Your task to perform on an android device: toggle location history Image 0: 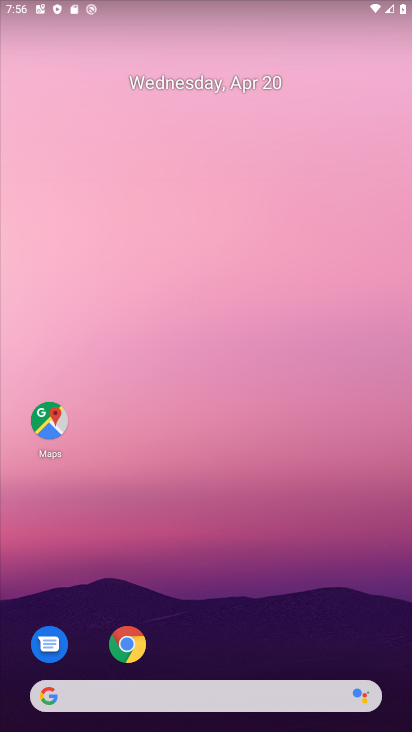
Step 0: drag from (290, 632) to (225, 81)
Your task to perform on an android device: toggle location history Image 1: 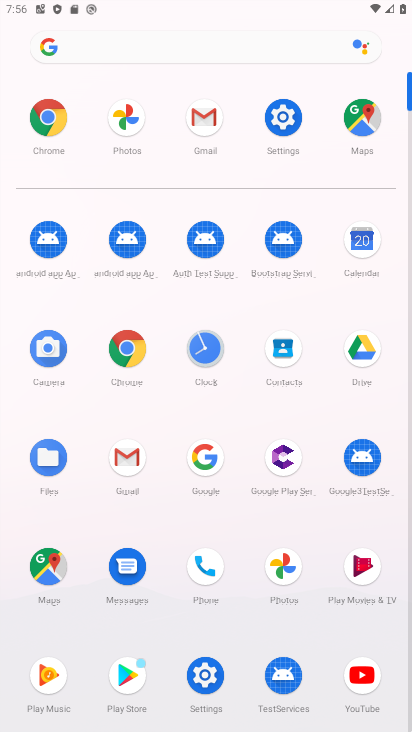
Step 1: click (282, 116)
Your task to perform on an android device: toggle location history Image 2: 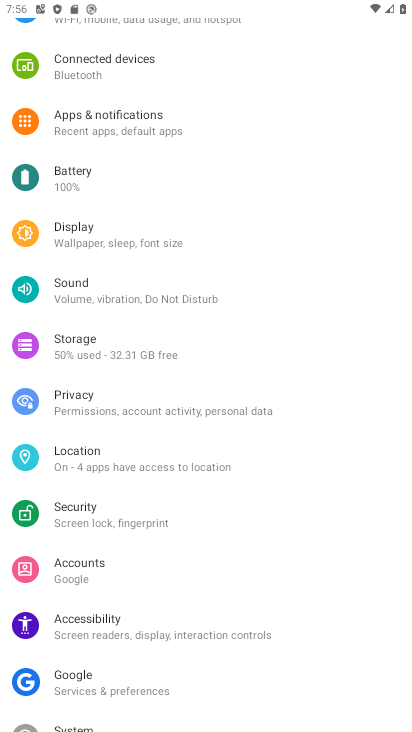
Step 2: click (124, 462)
Your task to perform on an android device: toggle location history Image 3: 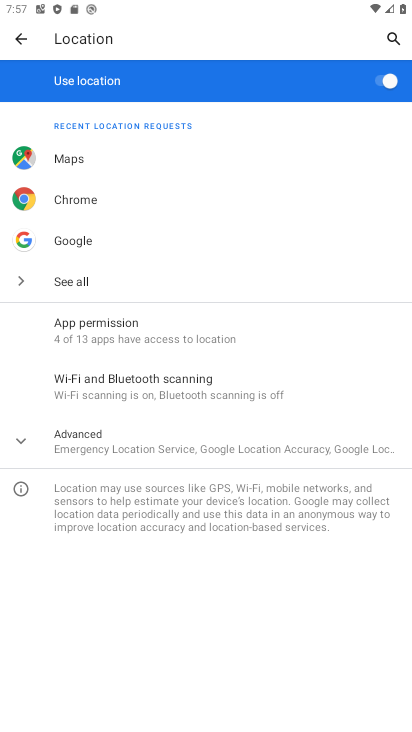
Step 3: click (15, 442)
Your task to perform on an android device: toggle location history Image 4: 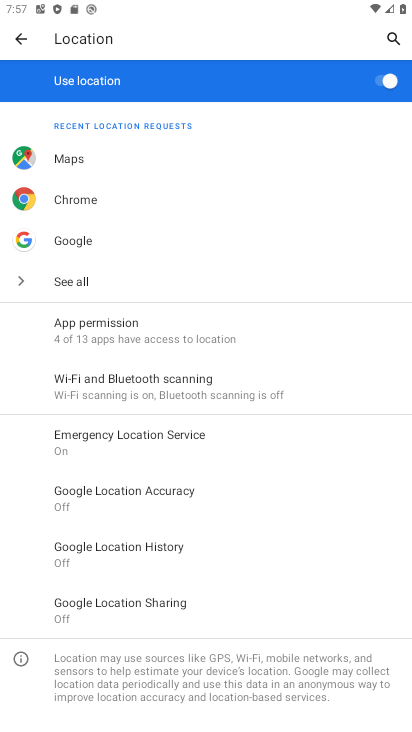
Step 4: click (198, 551)
Your task to perform on an android device: toggle location history Image 5: 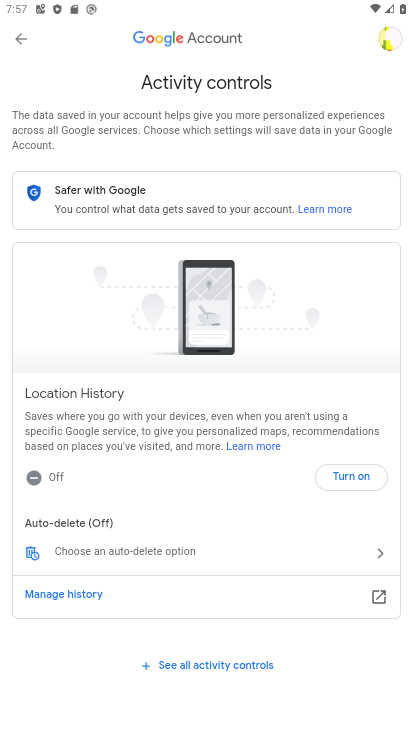
Step 5: click (332, 473)
Your task to perform on an android device: toggle location history Image 6: 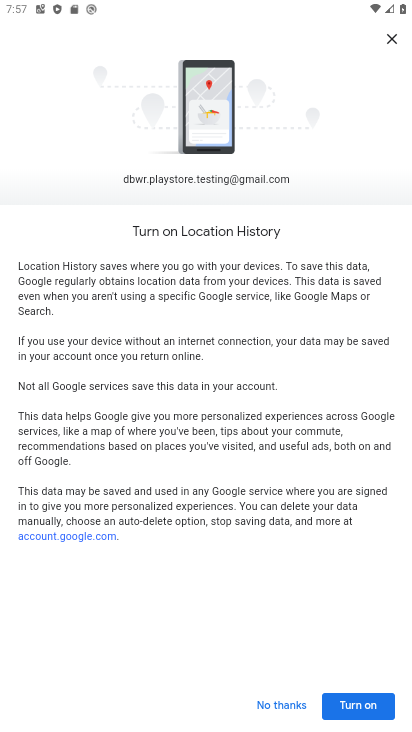
Step 6: task complete